Your task to perform on an android device: delete location history Image 0: 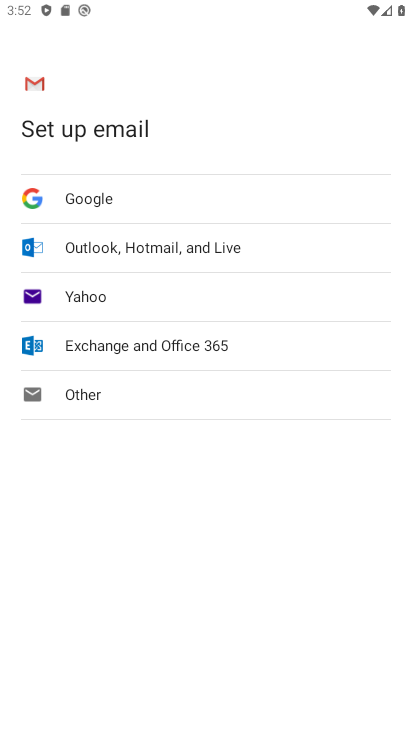
Step 0: press back button
Your task to perform on an android device: delete location history Image 1: 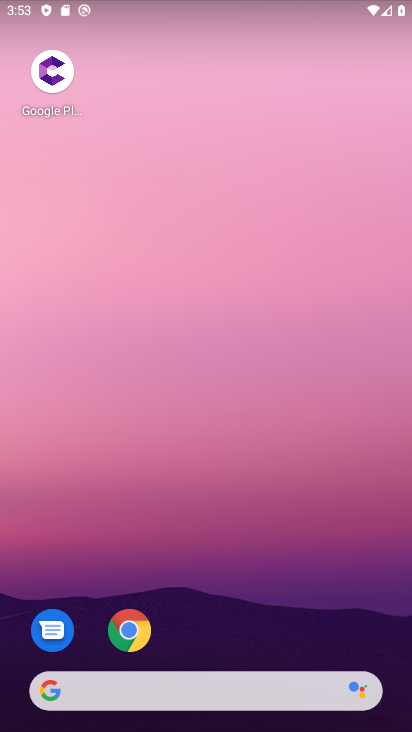
Step 1: drag from (319, 584) to (290, 47)
Your task to perform on an android device: delete location history Image 2: 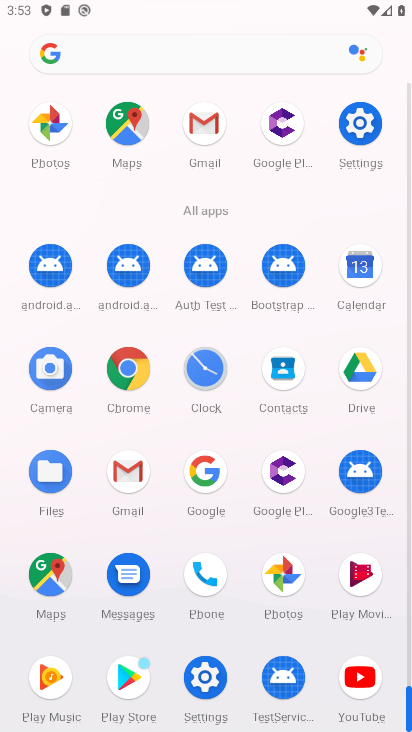
Step 2: drag from (6, 572) to (12, 280)
Your task to perform on an android device: delete location history Image 3: 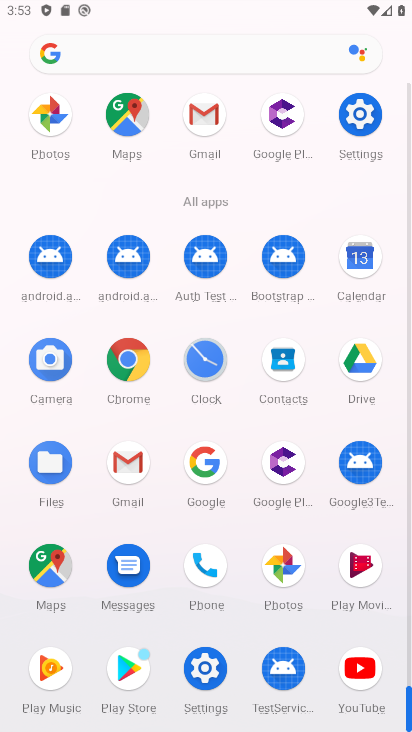
Step 3: click (203, 667)
Your task to perform on an android device: delete location history Image 4: 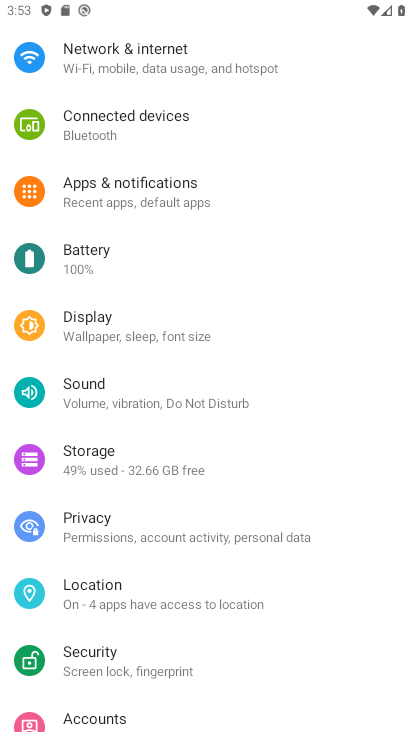
Step 4: click (115, 594)
Your task to perform on an android device: delete location history Image 5: 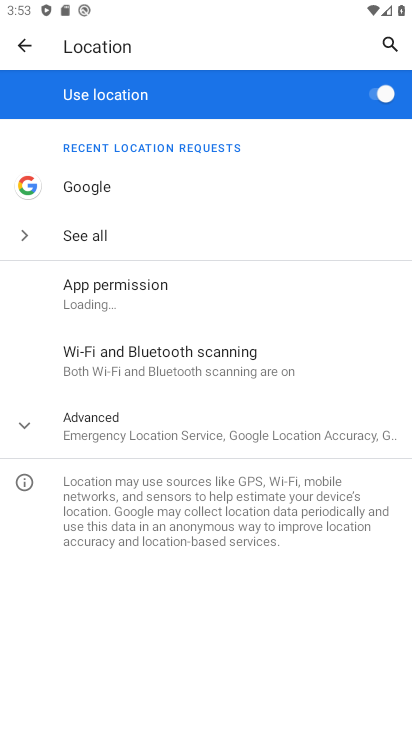
Step 5: click (53, 422)
Your task to perform on an android device: delete location history Image 6: 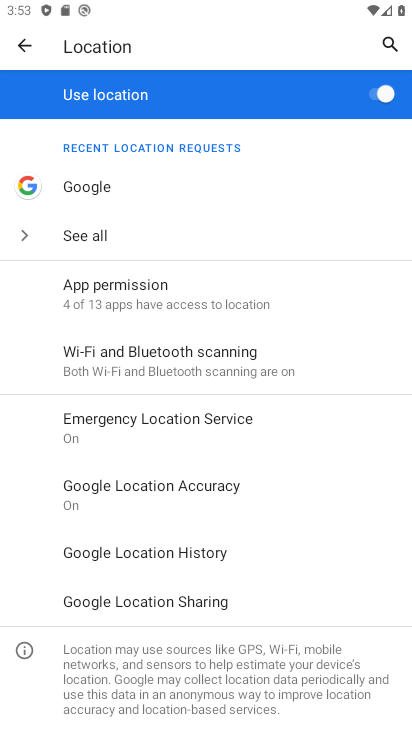
Step 6: click (141, 553)
Your task to perform on an android device: delete location history Image 7: 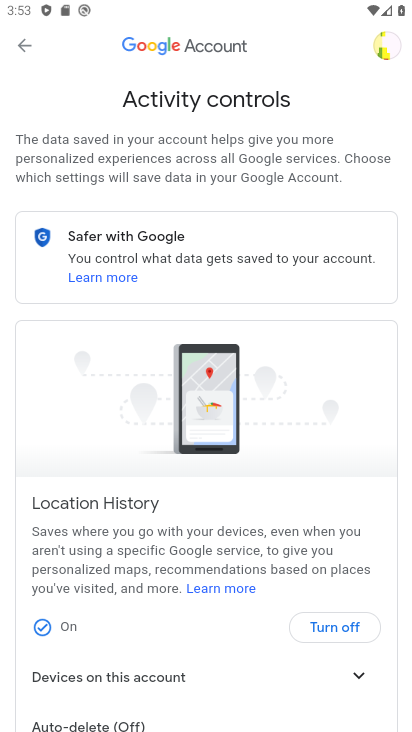
Step 7: drag from (246, 588) to (262, 150)
Your task to perform on an android device: delete location history Image 8: 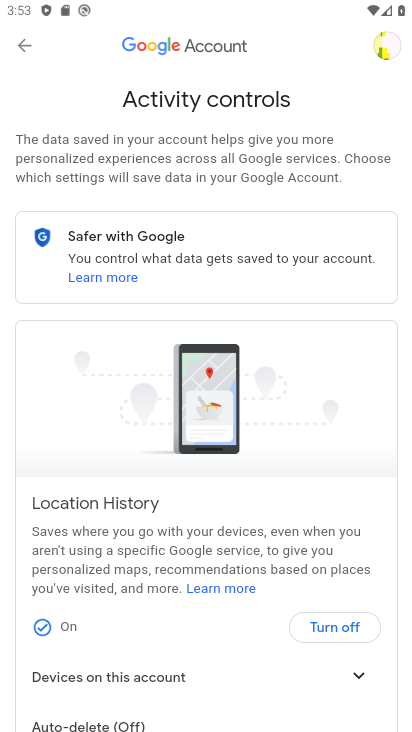
Step 8: drag from (142, 586) to (182, 197)
Your task to perform on an android device: delete location history Image 9: 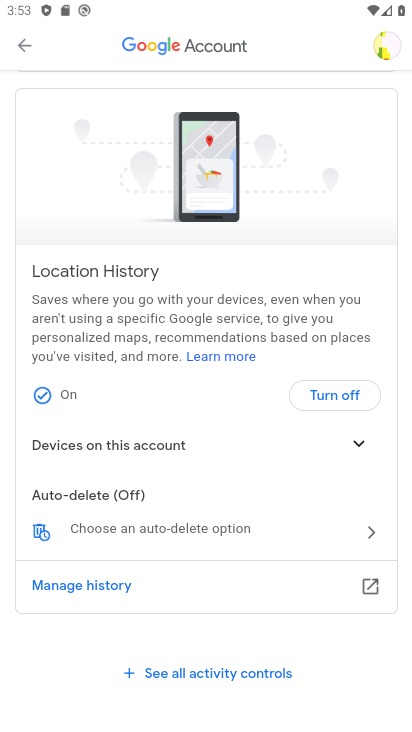
Step 9: click (37, 531)
Your task to perform on an android device: delete location history Image 10: 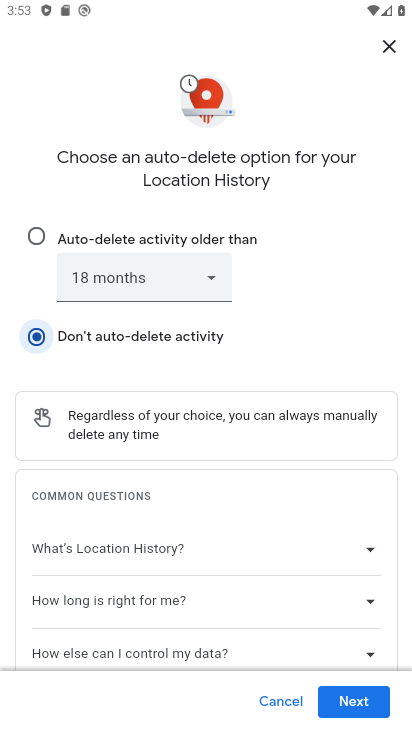
Step 10: click (348, 700)
Your task to perform on an android device: delete location history Image 11: 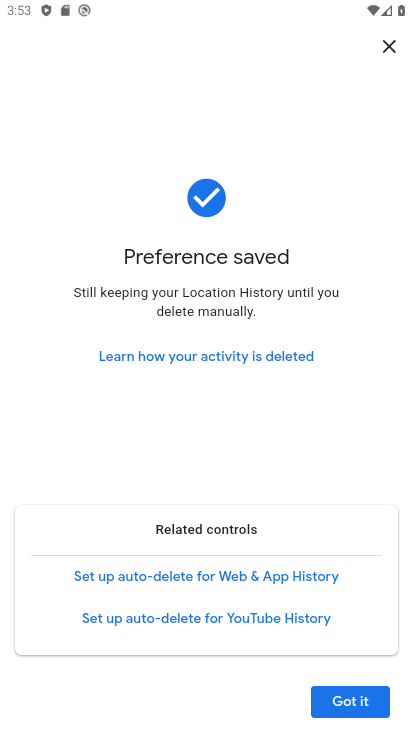
Step 11: task complete